Your task to perform on an android device: View the shopping cart on costco.com. Search for "jbl charge 4" on costco.com, select the first entry, add it to the cart, then select checkout. Image 0: 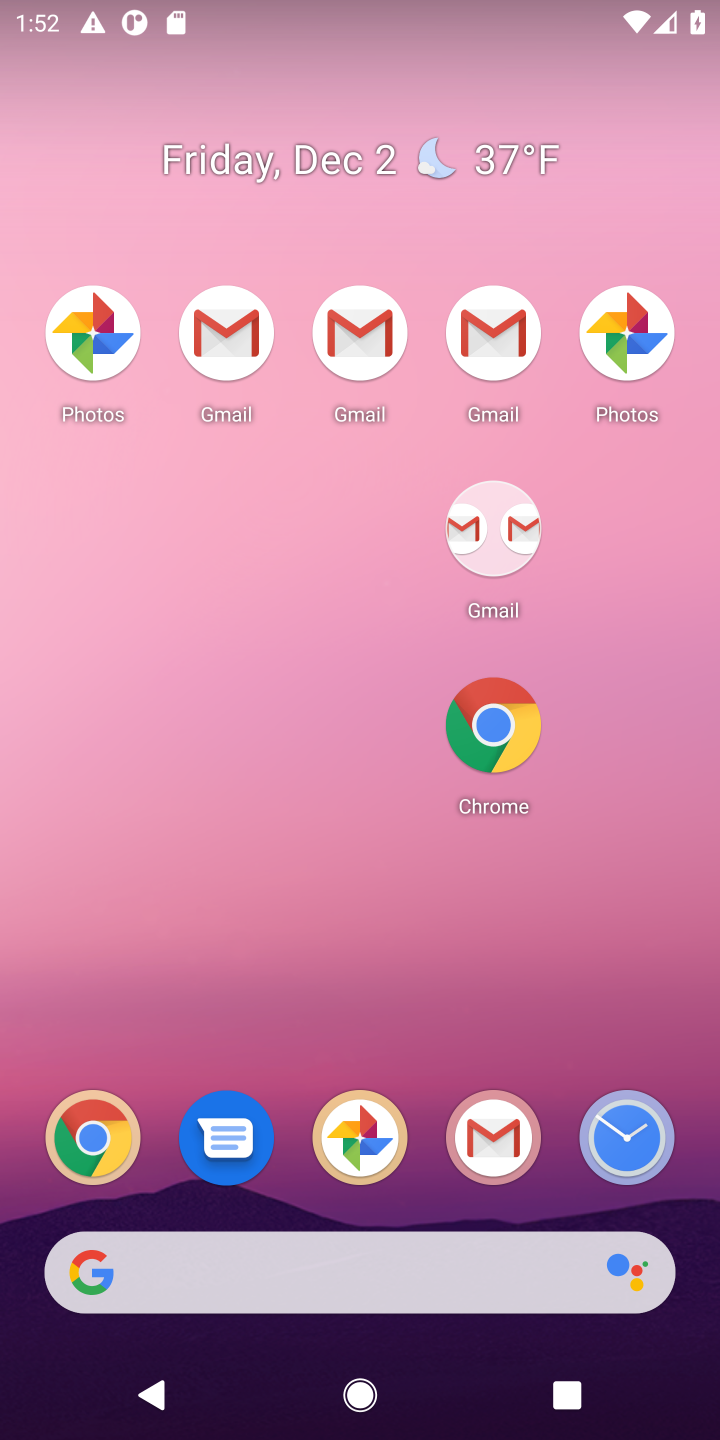
Step 0: drag from (459, 351) to (479, 259)
Your task to perform on an android device: View the shopping cart on costco.com. Search for "jbl charge 4" on costco.com, select the first entry, add it to the cart, then select checkout. Image 1: 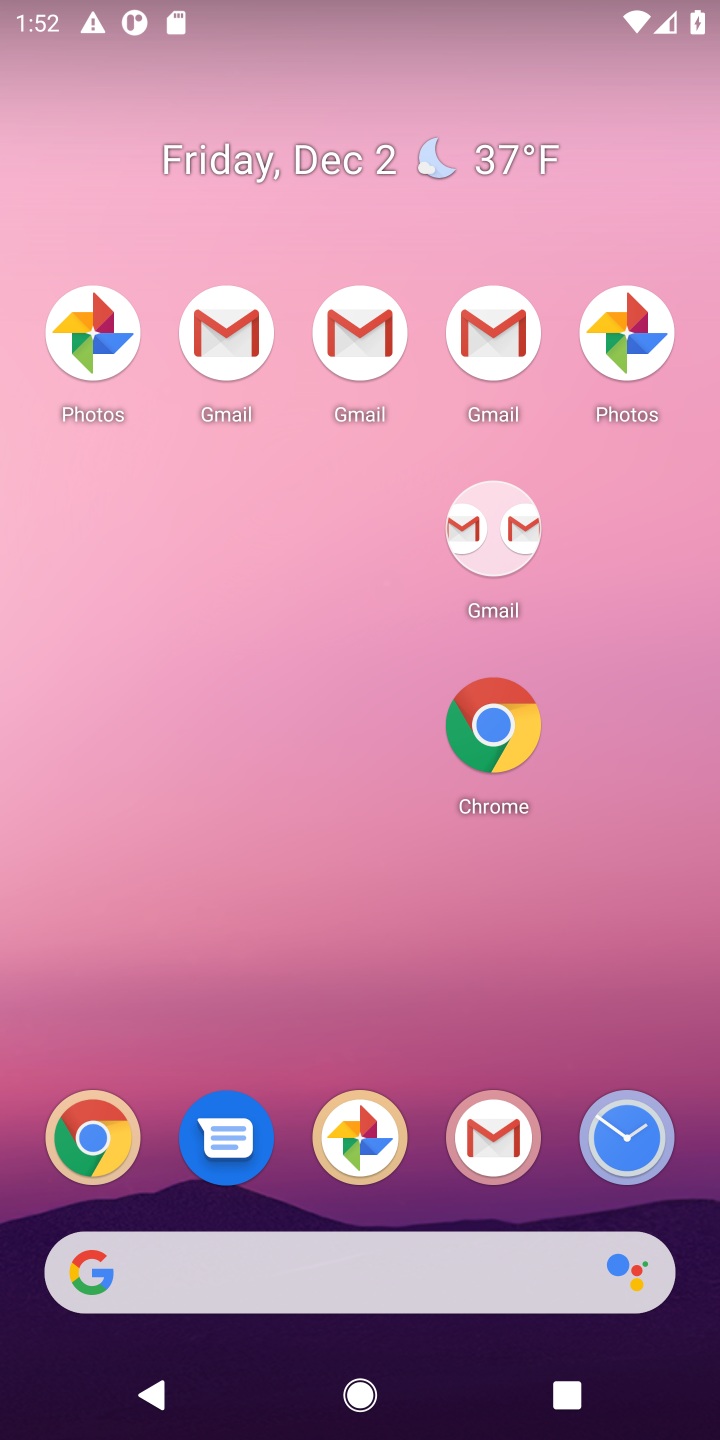
Step 1: drag from (325, 826) to (385, 180)
Your task to perform on an android device: View the shopping cart on costco.com. Search for "jbl charge 4" on costco.com, select the first entry, add it to the cart, then select checkout. Image 2: 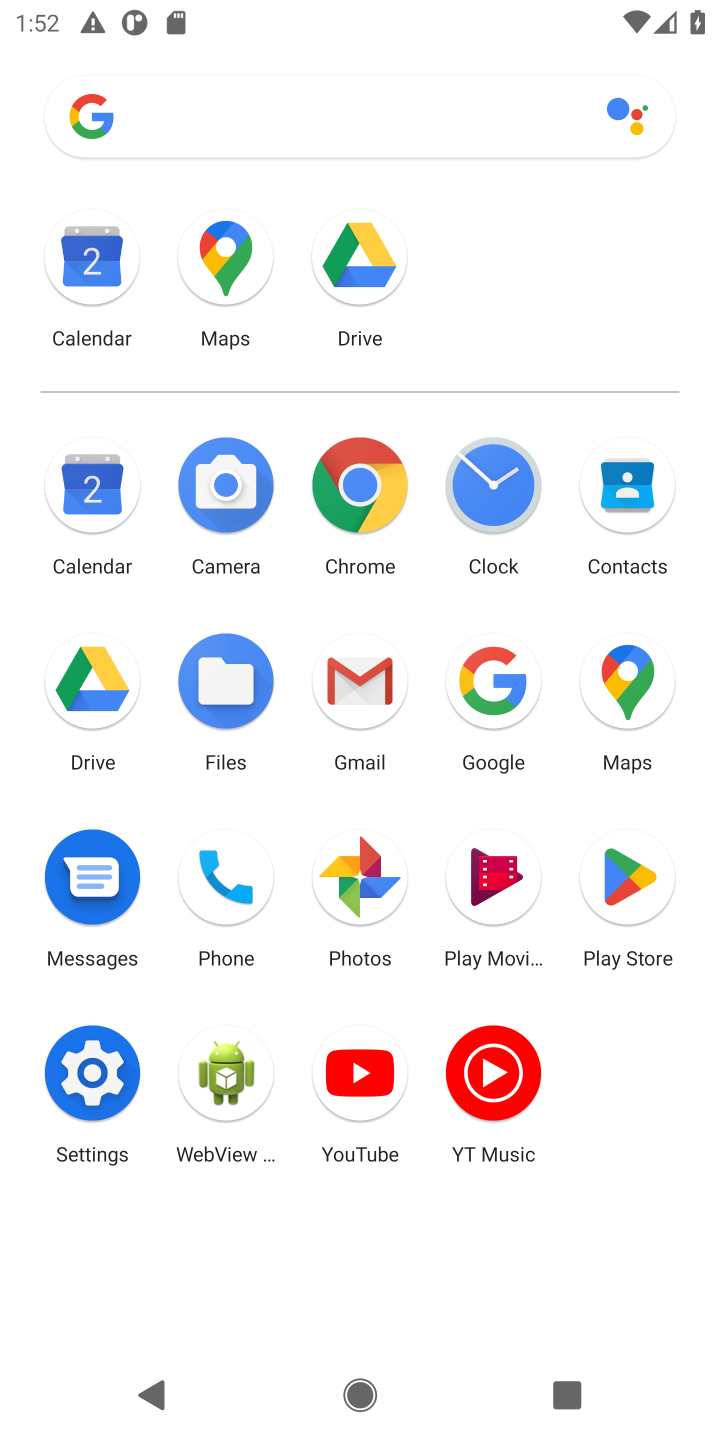
Step 2: click (475, 730)
Your task to perform on an android device: View the shopping cart on costco.com. Search for "jbl charge 4" on costco.com, select the first entry, add it to the cart, then select checkout. Image 3: 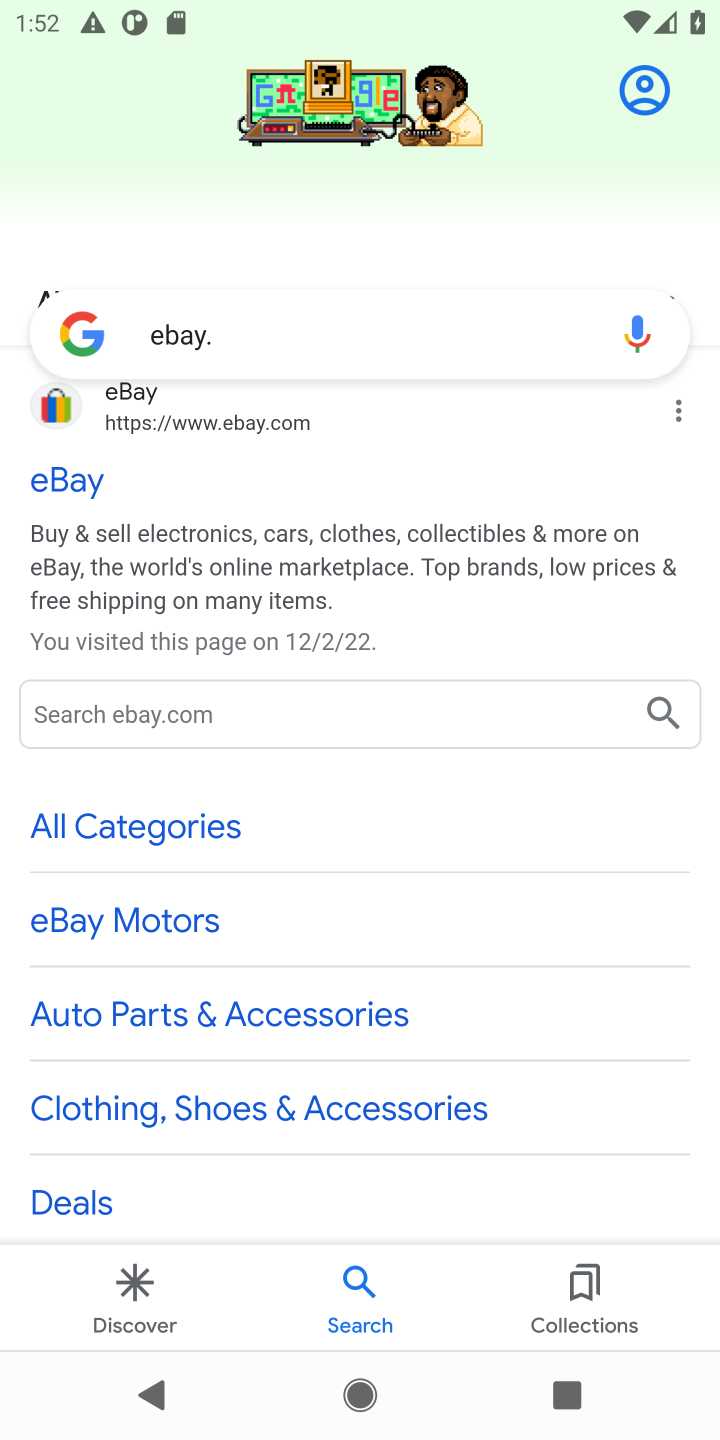
Step 3: click (378, 343)
Your task to perform on an android device: View the shopping cart on costco.com. Search for "jbl charge 4" on costco.com, select the first entry, add it to the cart, then select checkout. Image 4: 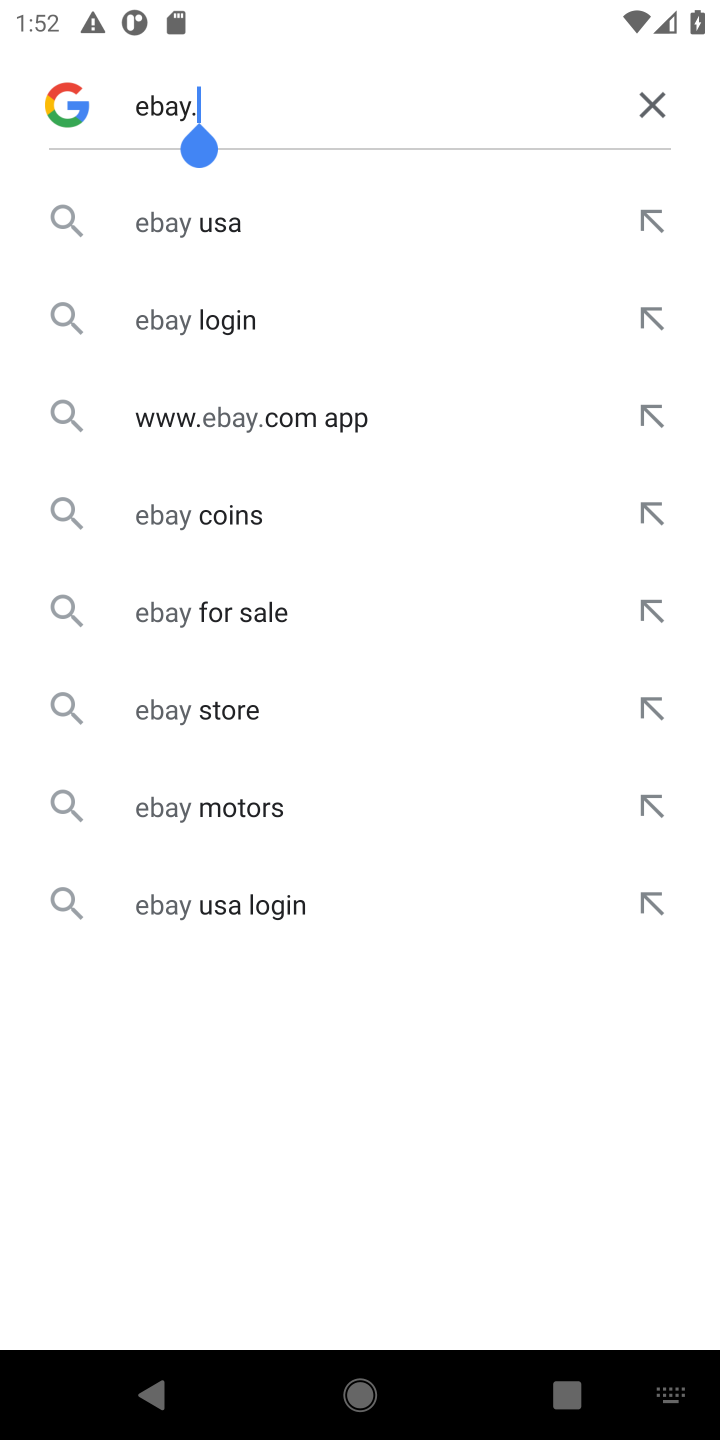
Step 4: click (659, 96)
Your task to perform on an android device: View the shopping cart on costco.com. Search for "jbl charge 4" on costco.com, select the first entry, add it to the cart, then select checkout. Image 5: 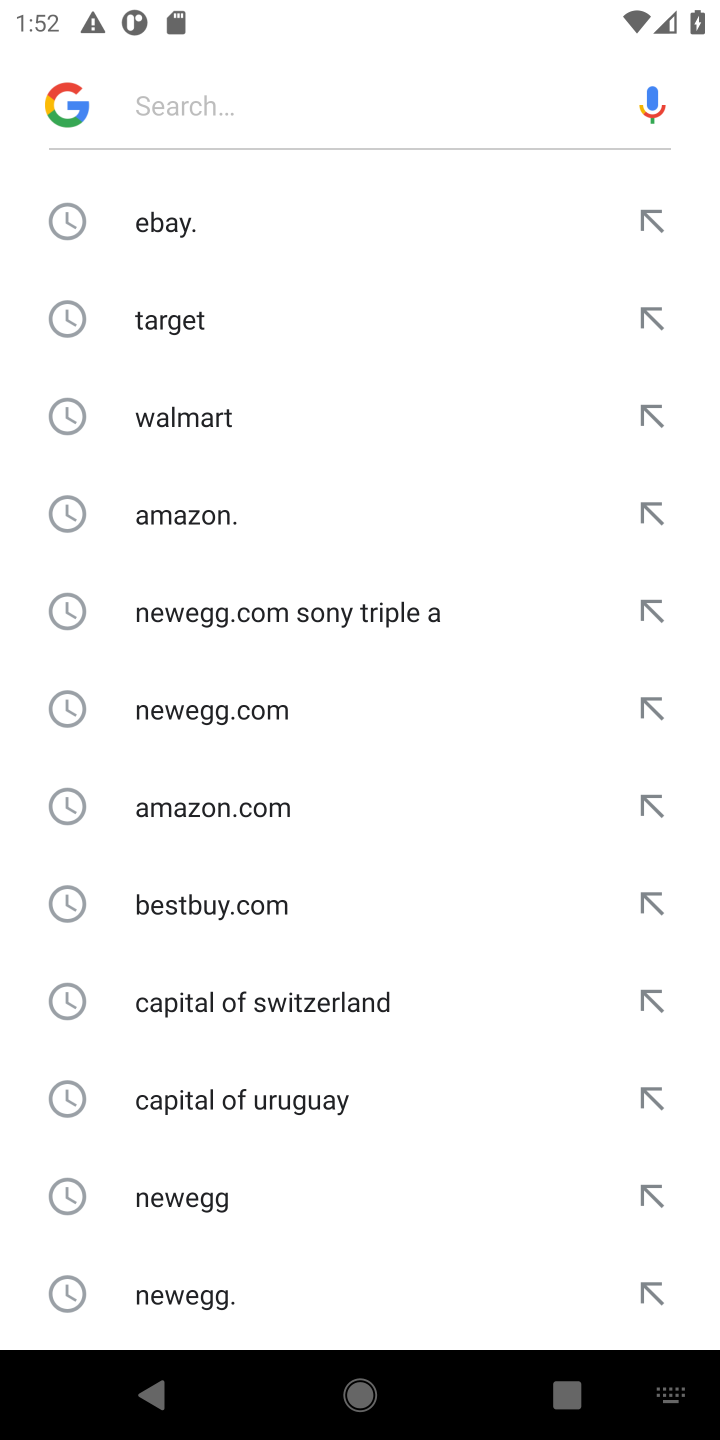
Step 5: type "costco.com"
Your task to perform on an android device: View the shopping cart on costco.com. Search for "jbl charge 4" on costco.com, select the first entry, add it to the cart, then select checkout. Image 6: 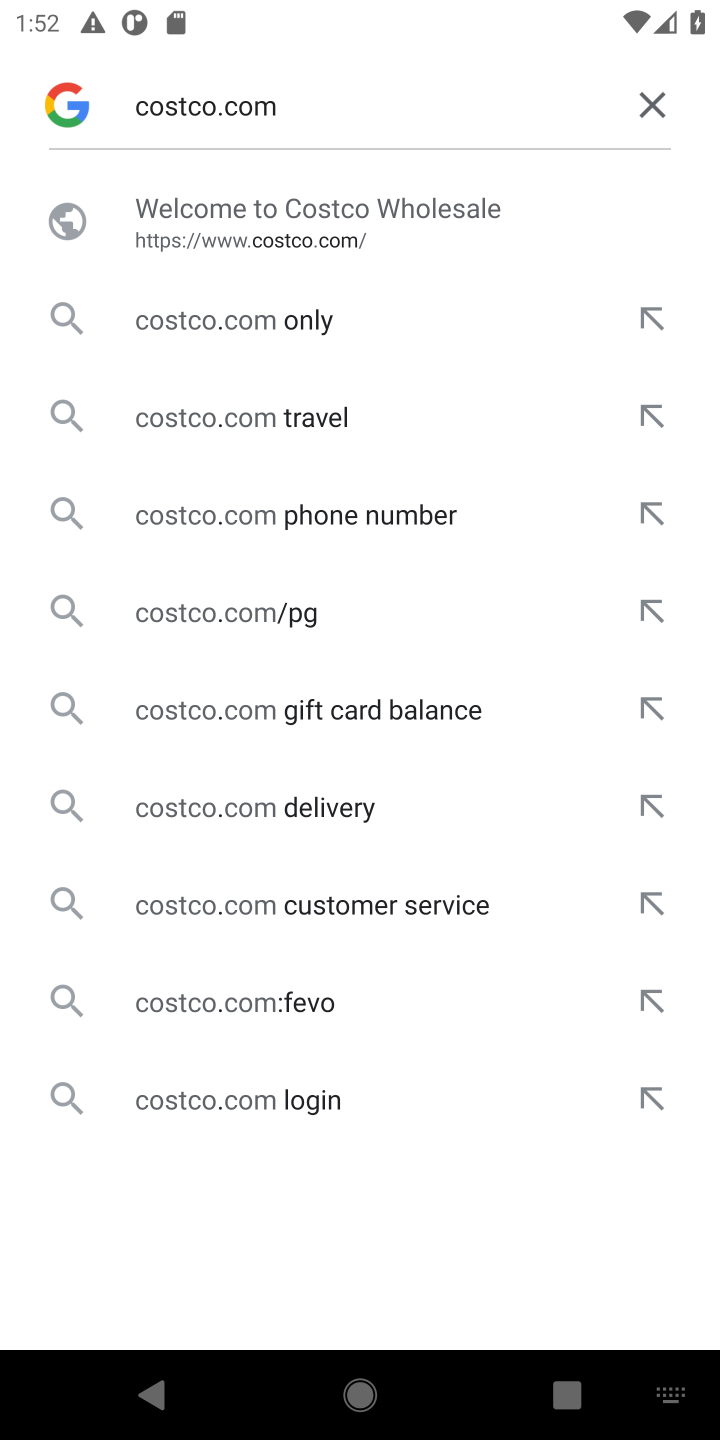
Step 6: type ""
Your task to perform on an android device: View the shopping cart on costco.com. Search for "jbl charge 4" on costco.com, select the first entry, add it to the cart, then select checkout. Image 7: 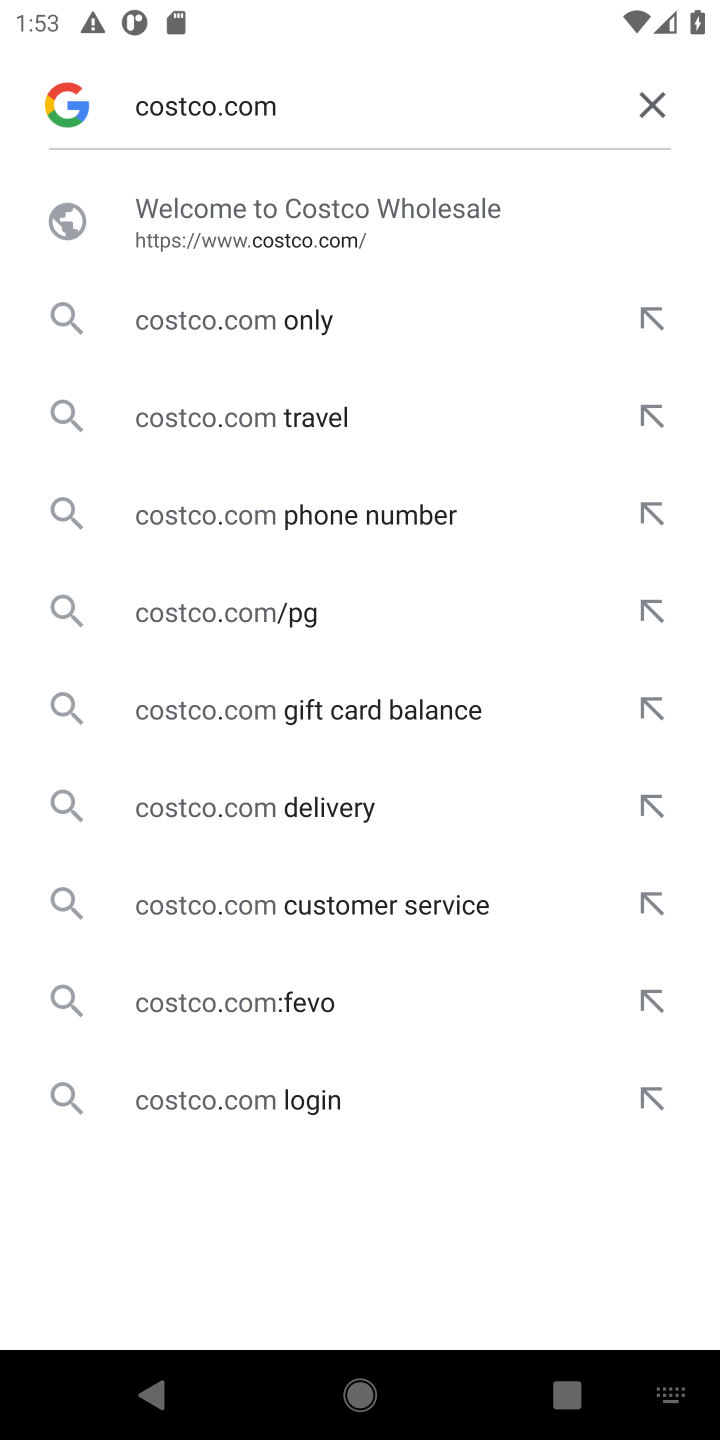
Step 7: click (369, 251)
Your task to perform on an android device: View the shopping cart on costco.com. Search for "jbl charge 4" on costco.com, select the first entry, add it to the cart, then select checkout. Image 8: 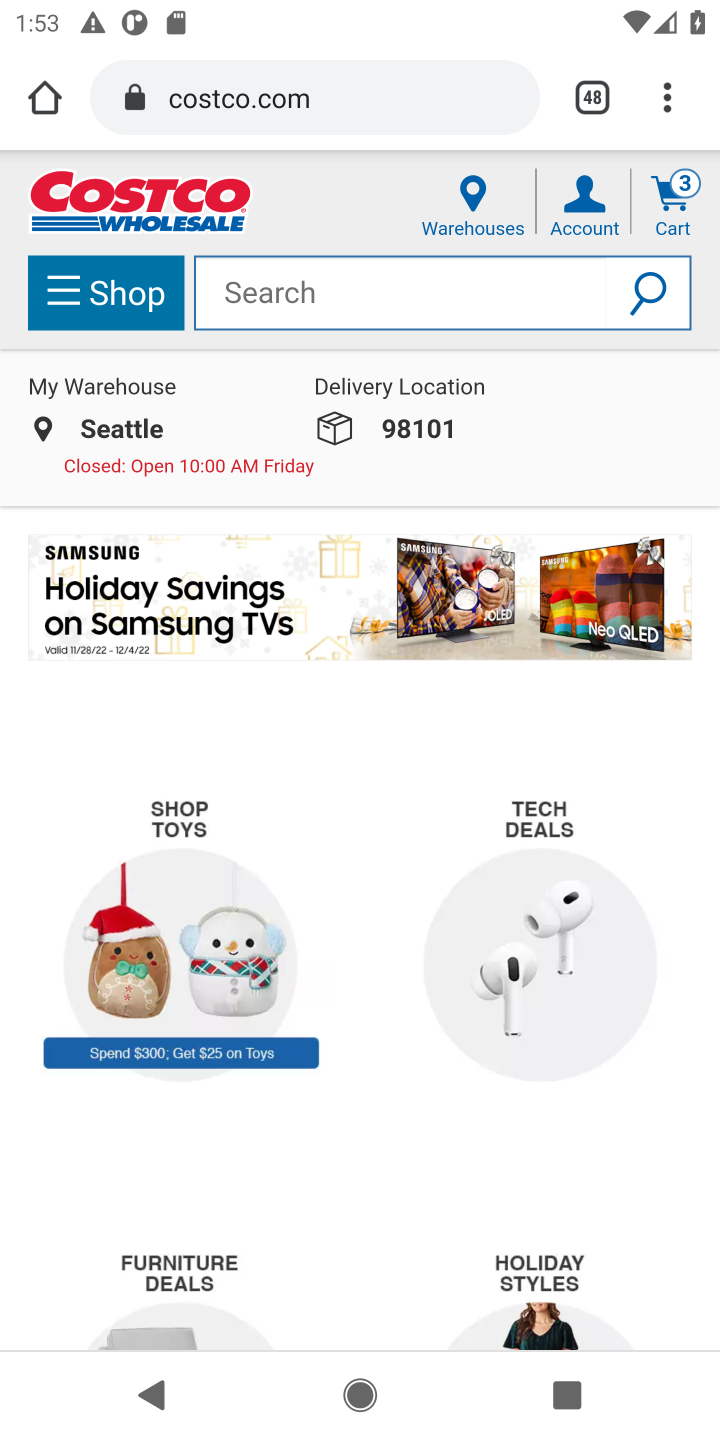
Step 8: click (682, 179)
Your task to perform on an android device: View the shopping cart on costco.com. Search for "jbl charge 4" on costco.com, select the first entry, add it to the cart, then select checkout. Image 9: 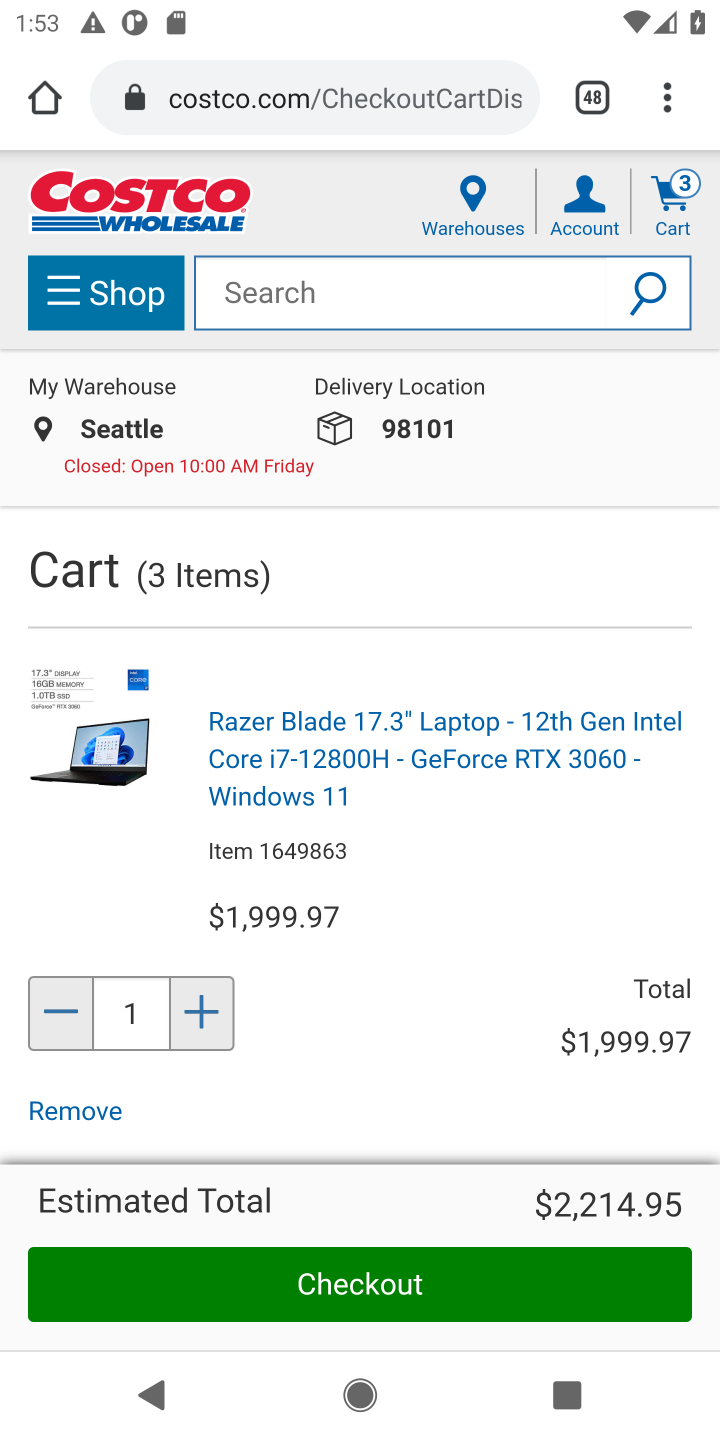
Step 9: click (392, 312)
Your task to perform on an android device: View the shopping cart on costco.com. Search for "jbl charge 4" on costco.com, select the first entry, add it to the cart, then select checkout. Image 10: 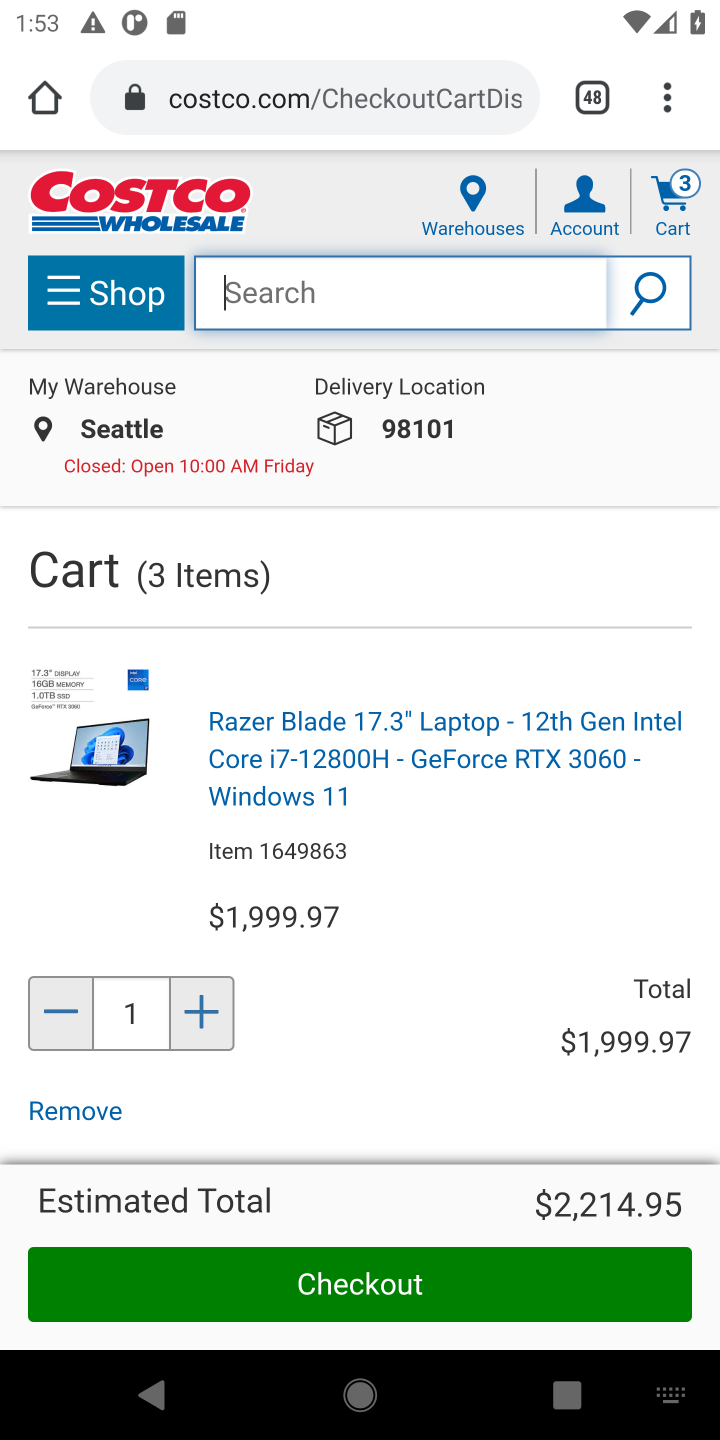
Step 10: type "jbl charge 4"
Your task to perform on an android device: View the shopping cart on costco.com. Search for "jbl charge 4" on costco.com, select the first entry, add it to the cart, then select checkout. Image 11: 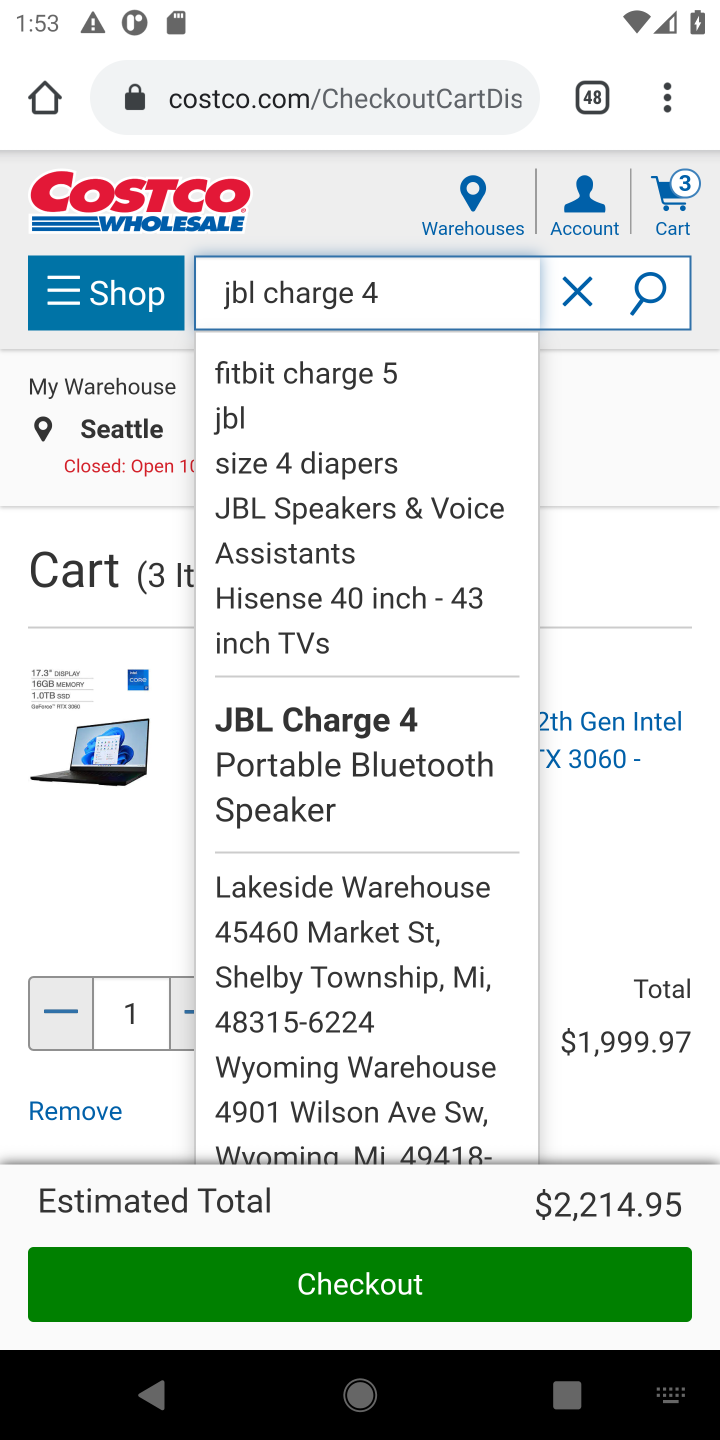
Step 11: click (649, 281)
Your task to perform on an android device: View the shopping cart on costco.com. Search for "jbl charge 4" on costco.com, select the first entry, add it to the cart, then select checkout. Image 12: 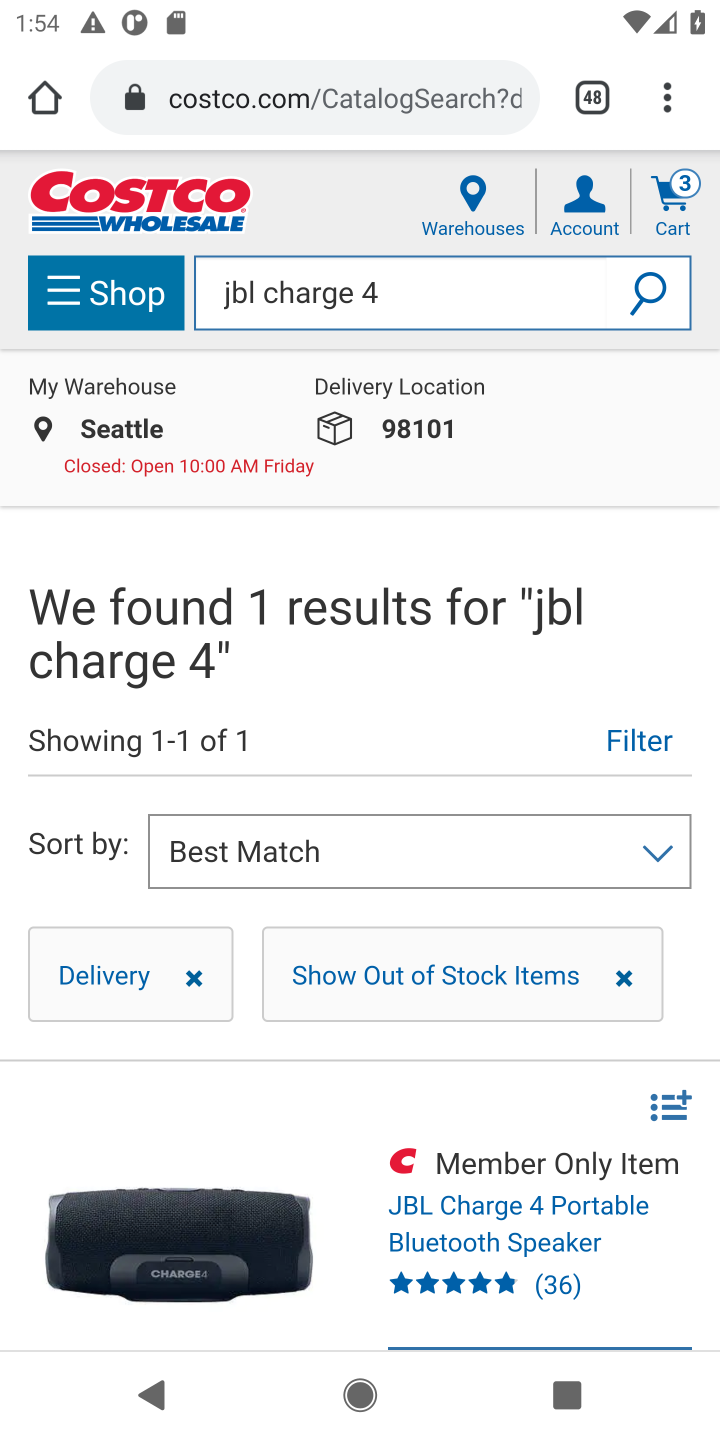
Step 12: click (455, 1208)
Your task to perform on an android device: View the shopping cart on costco.com. Search for "jbl charge 4" on costco.com, select the first entry, add it to the cart, then select checkout. Image 13: 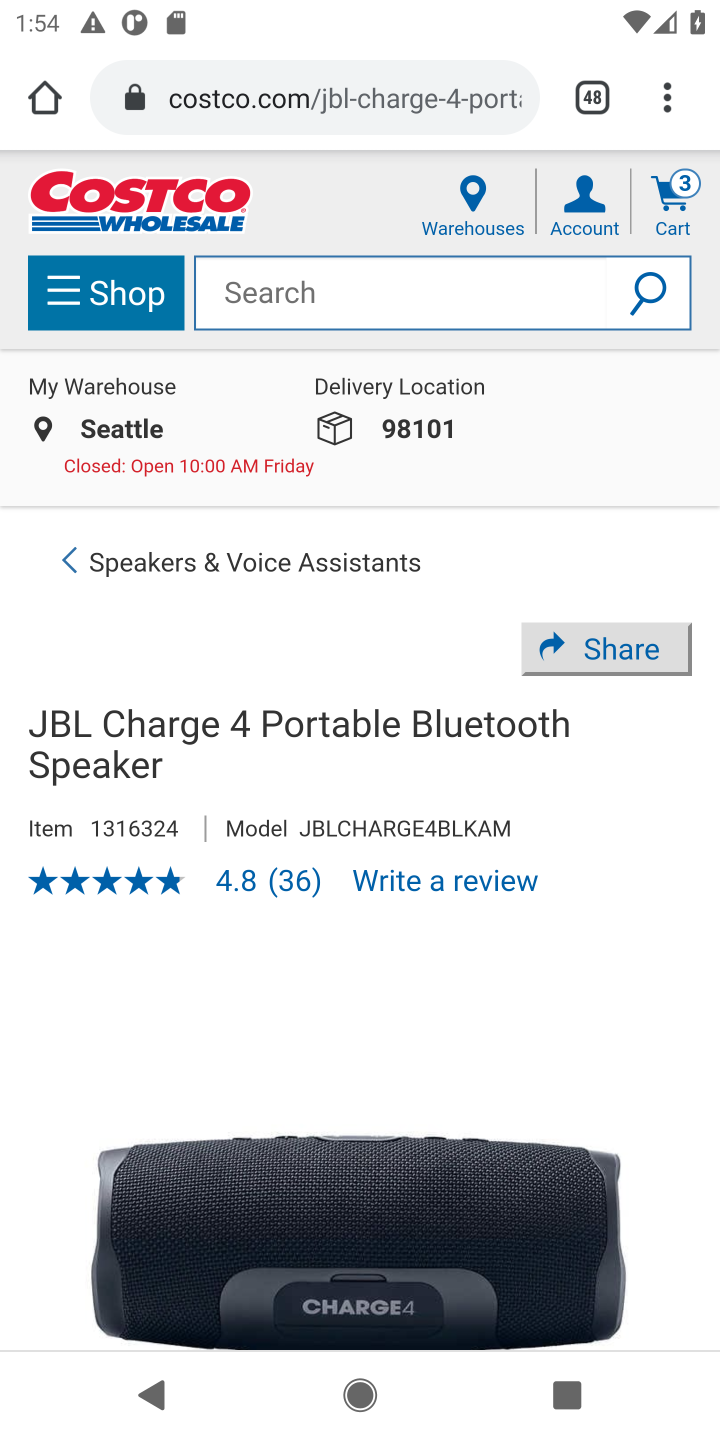
Step 13: drag from (538, 1124) to (540, 524)
Your task to perform on an android device: View the shopping cart on costco.com. Search for "jbl charge 4" on costco.com, select the first entry, add it to the cart, then select checkout. Image 14: 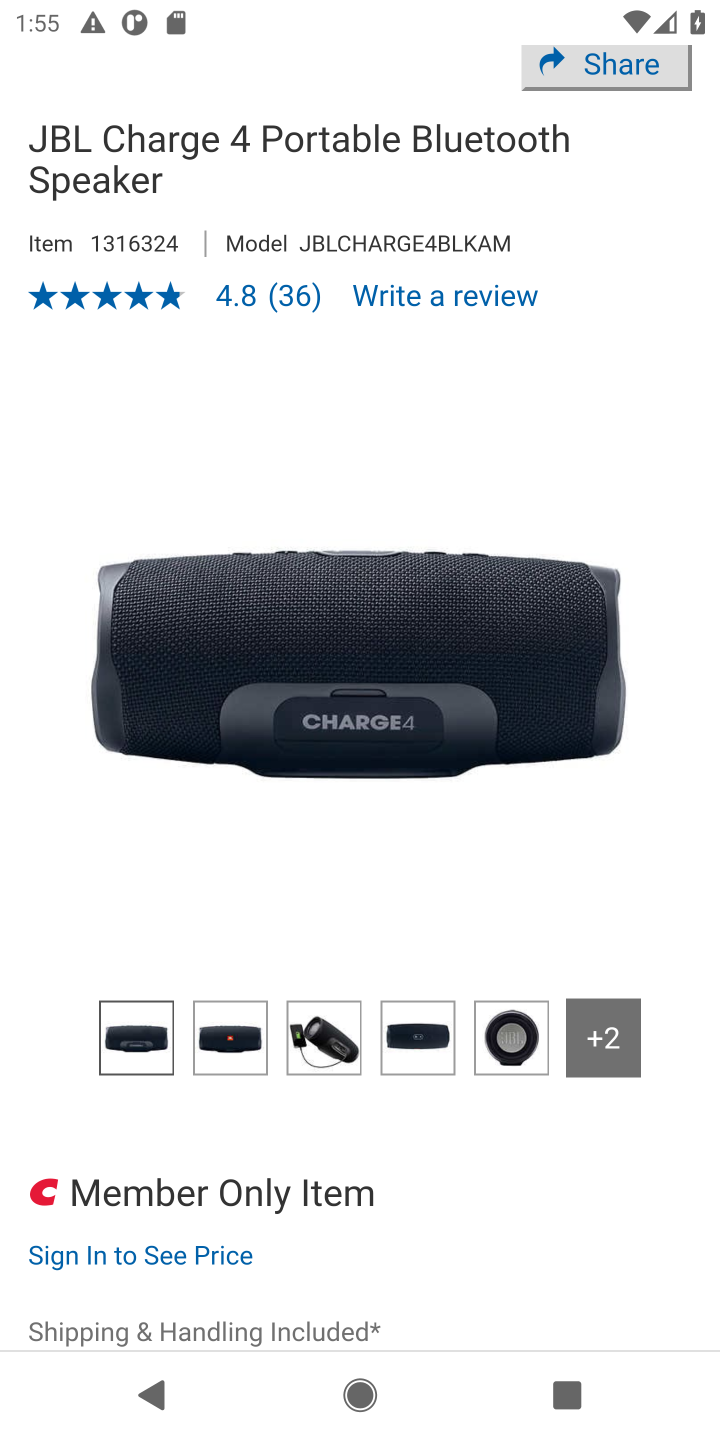
Step 14: drag from (399, 1251) to (447, 593)
Your task to perform on an android device: View the shopping cart on costco.com. Search for "jbl charge 4" on costco.com, select the first entry, add it to the cart, then select checkout. Image 15: 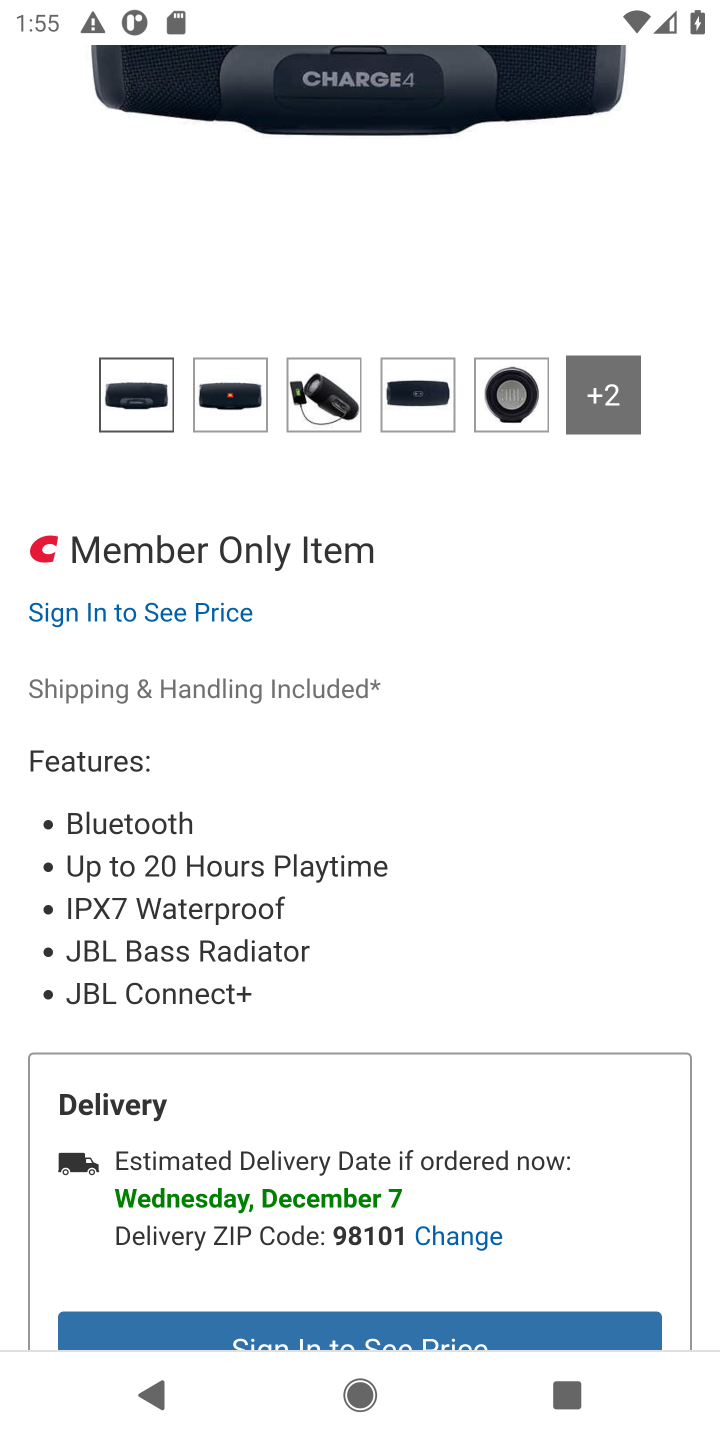
Step 15: drag from (437, 996) to (471, 503)
Your task to perform on an android device: View the shopping cart on costco.com. Search for "jbl charge 4" on costco.com, select the first entry, add it to the cart, then select checkout. Image 16: 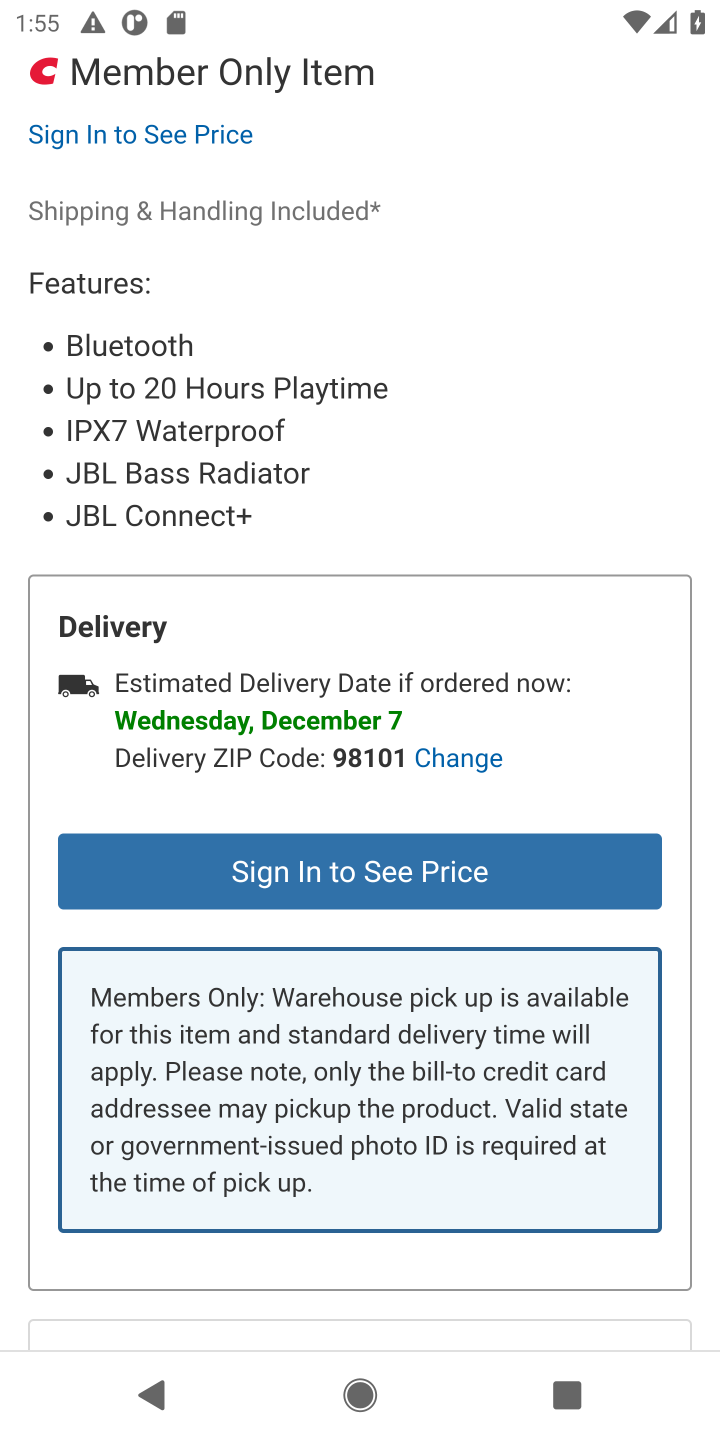
Step 16: drag from (621, 885) to (617, 471)
Your task to perform on an android device: View the shopping cart on costco.com. Search for "jbl charge 4" on costco.com, select the first entry, add it to the cart, then select checkout. Image 17: 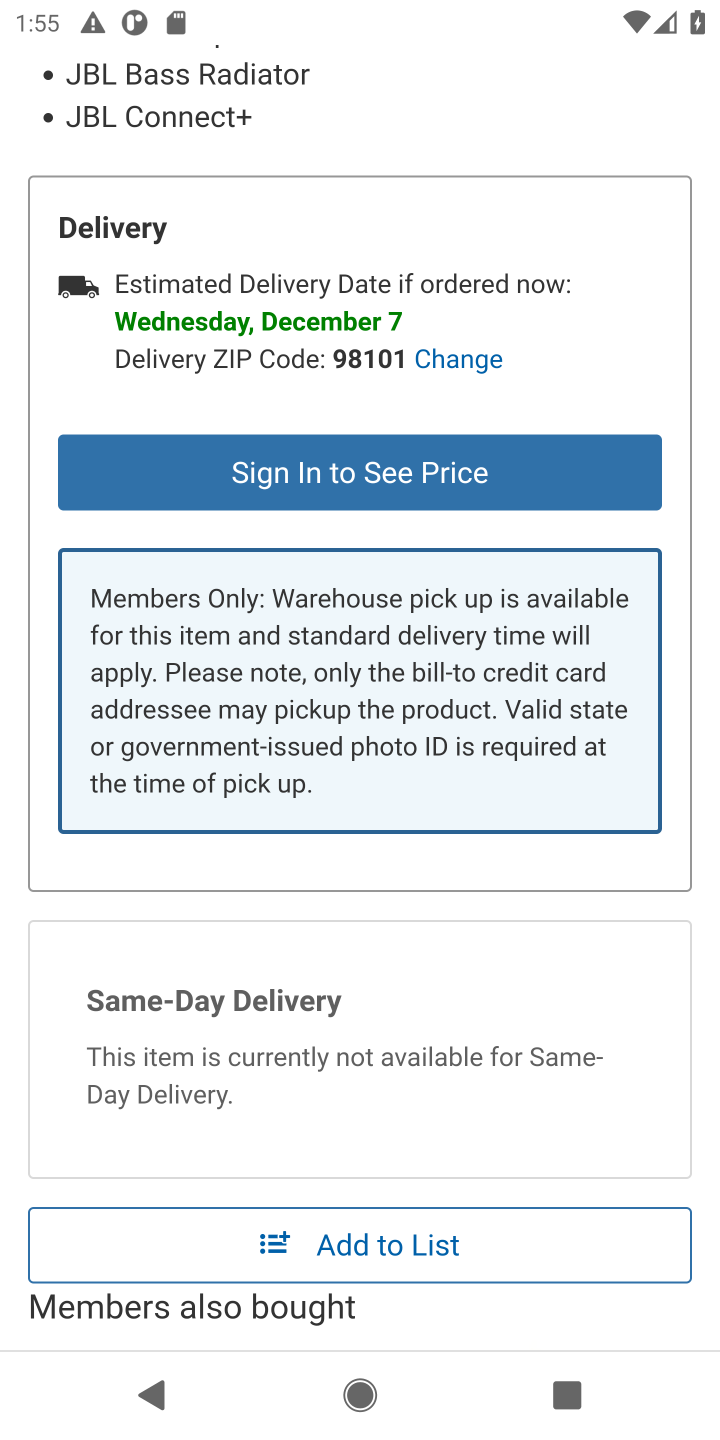
Step 17: click (473, 482)
Your task to perform on an android device: View the shopping cart on costco.com. Search for "jbl charge 4" on costco.com, select the first entry, add it to the cart, then select checkout. Image 18: 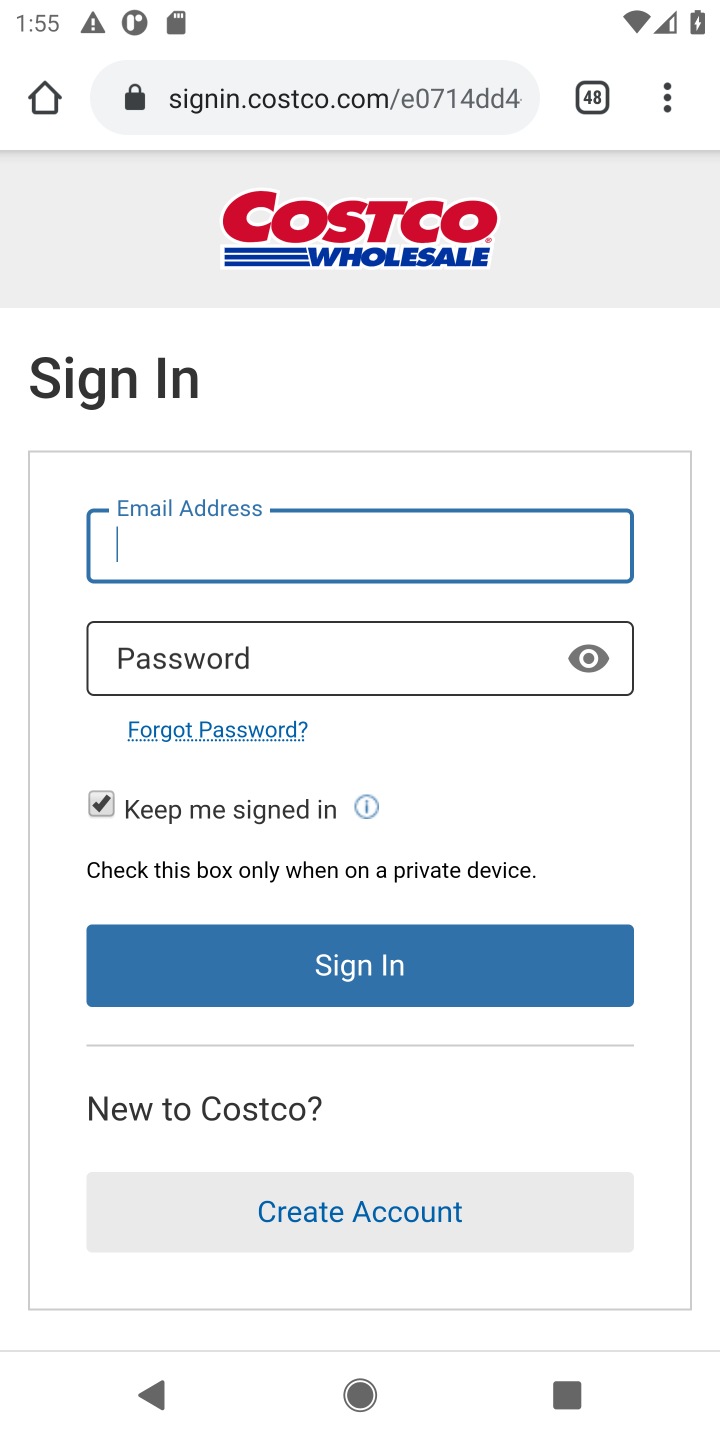
Step 18: task complete